Your task to perform on an android device: Open Google Chrome and click the shortcut for Amazon.com Image 0: 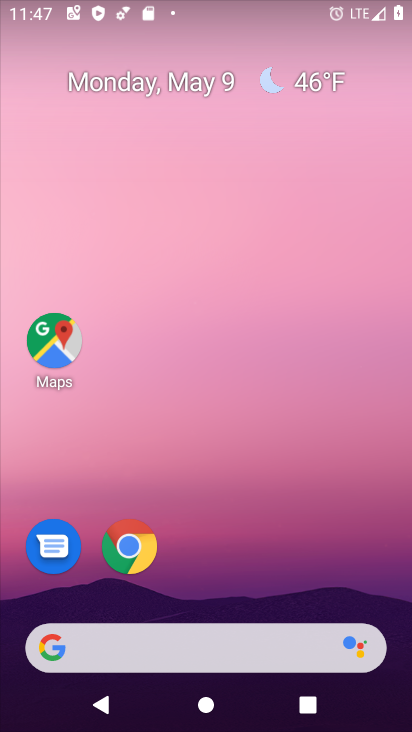
Step 0: click (134, 550)
Your task to perform on an android device: Open Google Chrome and click the shortcut for Amazon.com Image 1: 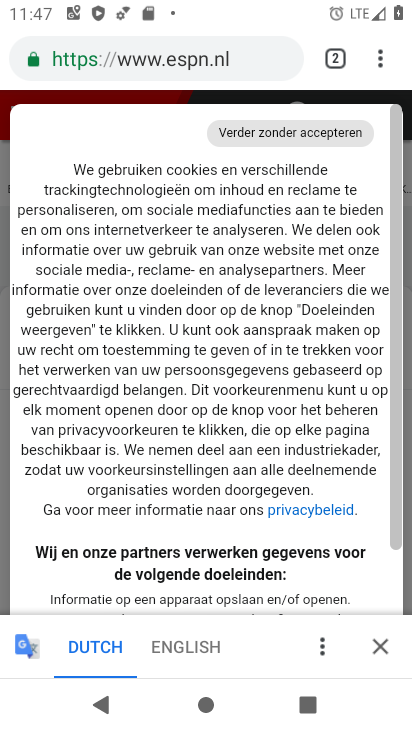
Step 1: drag from (378, 62) to (159, 125)
Your task to perform on an android device: Open Google Chrome and click the shortcut for Amazon.com Image 2: 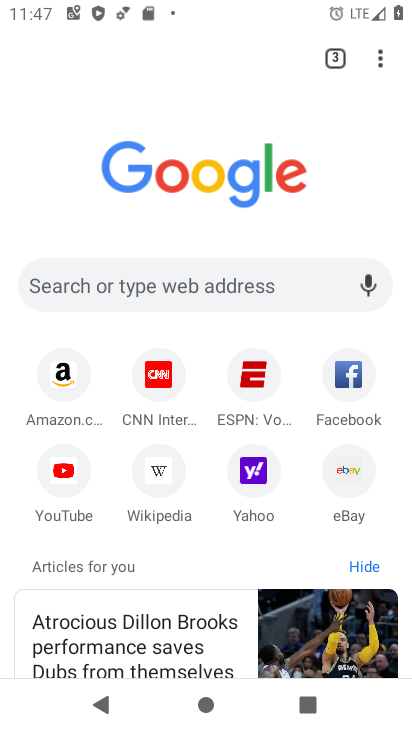
Step 2: click (58, 394)
Your task to perform on an android device: Open Google Chrome and click the shortcut for Amazon.com Image 3: 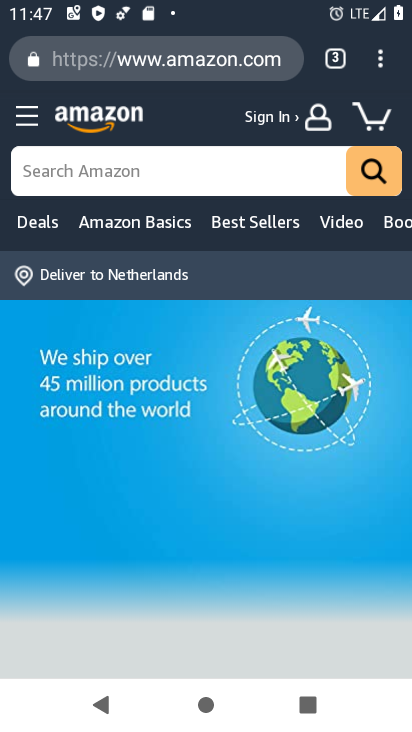
Step 3: task complete